Your task to perform on an android device: Clear the cart on target.com. Add usb-a to usb-b to the cart on target.com Image 0: 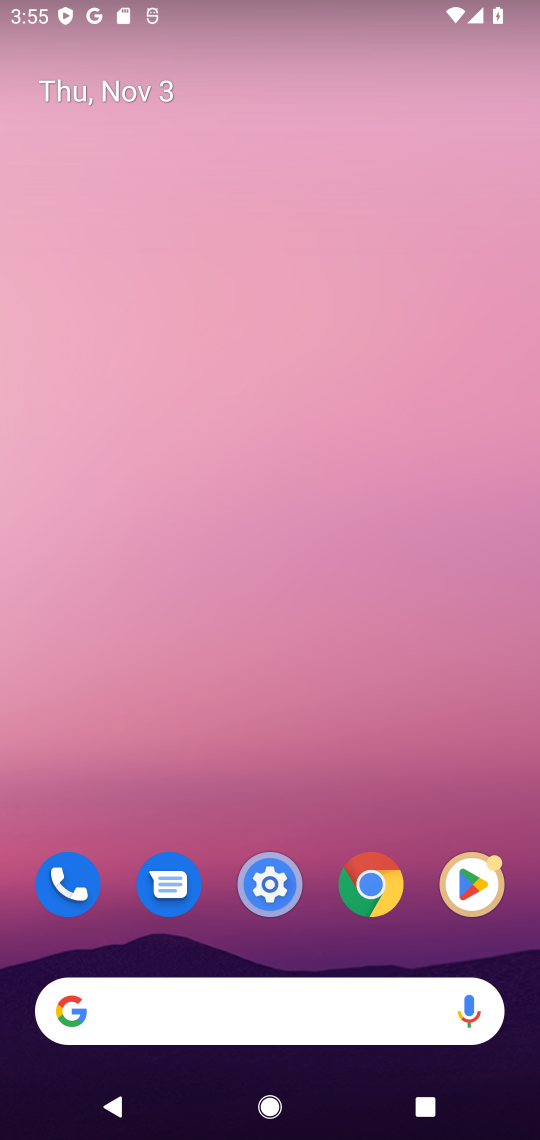
Step 0: press home button
Your task to perform on an android device: Clear the cart on target.com. Add usb-a to usb-b to the cart on target.com Image 1: 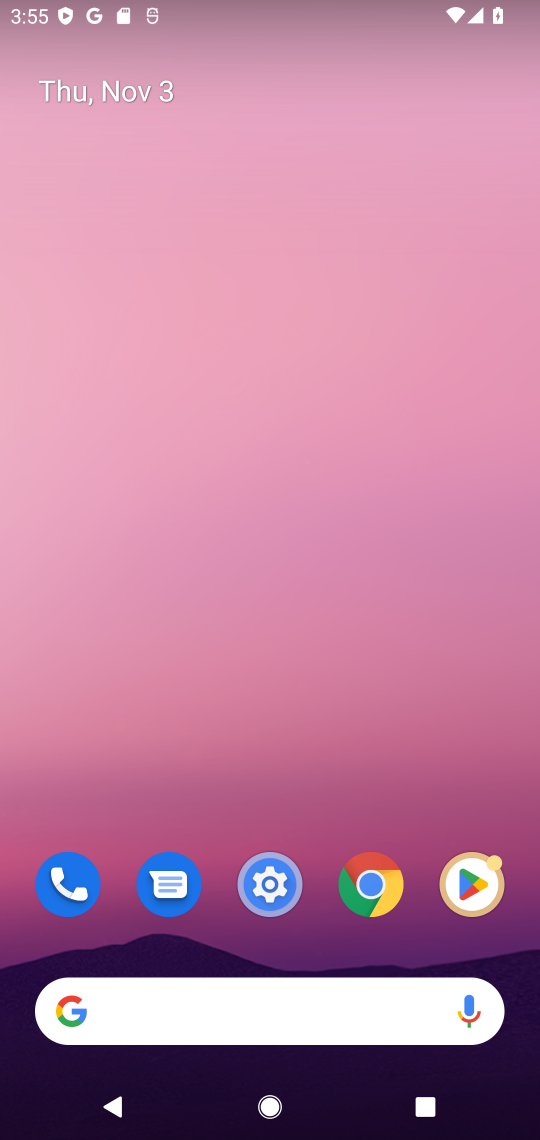
Step 1: click (102, 1006)
Your task to perform on an android device: Clear the cart on target.com. Add usb-a to usb-b to the cart on target.com Image 2: 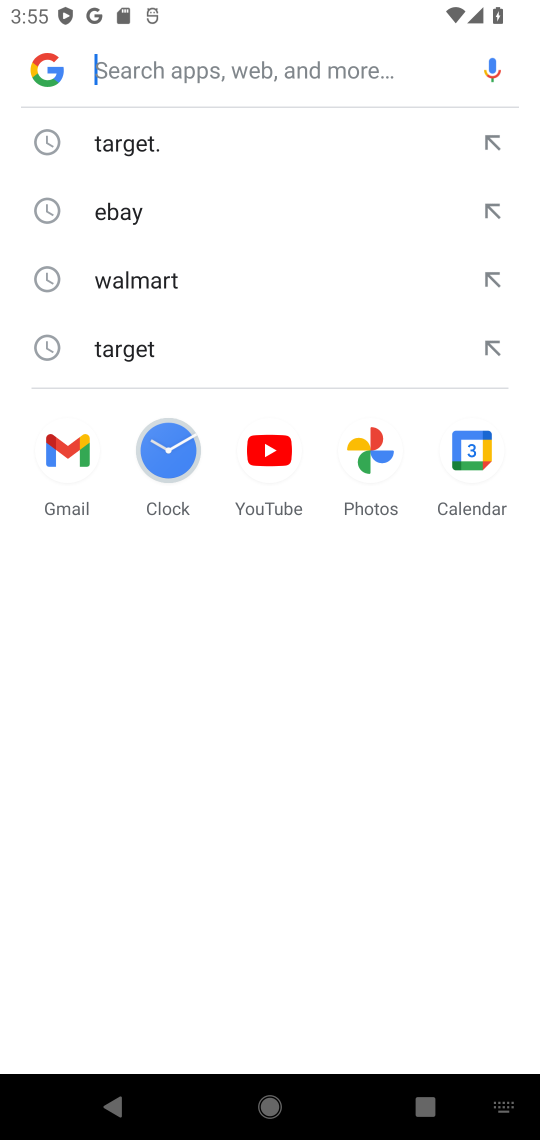
Step 2: type "target.com"
Your task to perform on an android device: Clear the cart on target.com. Add usb-a to usb-b to the cart on target.com Image 3: 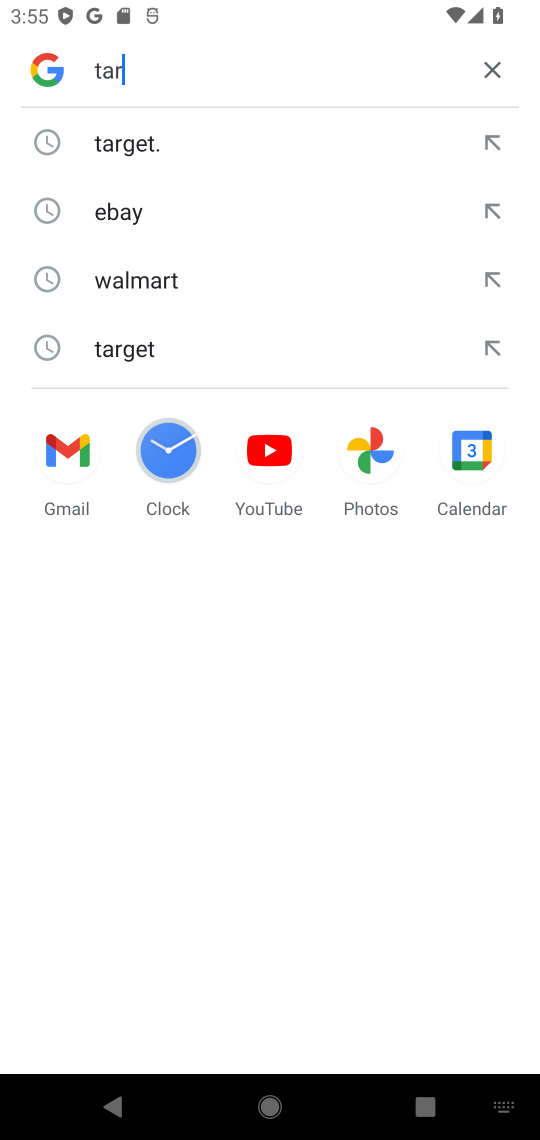
Step 3: press enter
Your task to perform on an android device: Clear the cart on target.com. Add usb-a to usb-b to the cart on target.com Image 4: 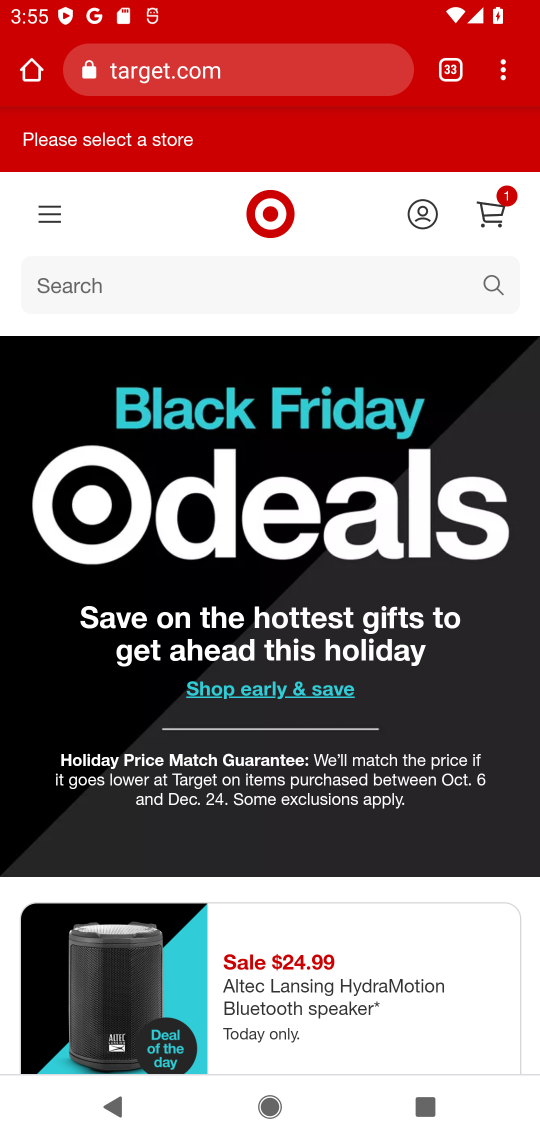
Step 4: click (492, 209)
Your task to perform on an android device: Clear the cart on target.com. Add usb-a to usb-b to the cart on target.com Image 5: 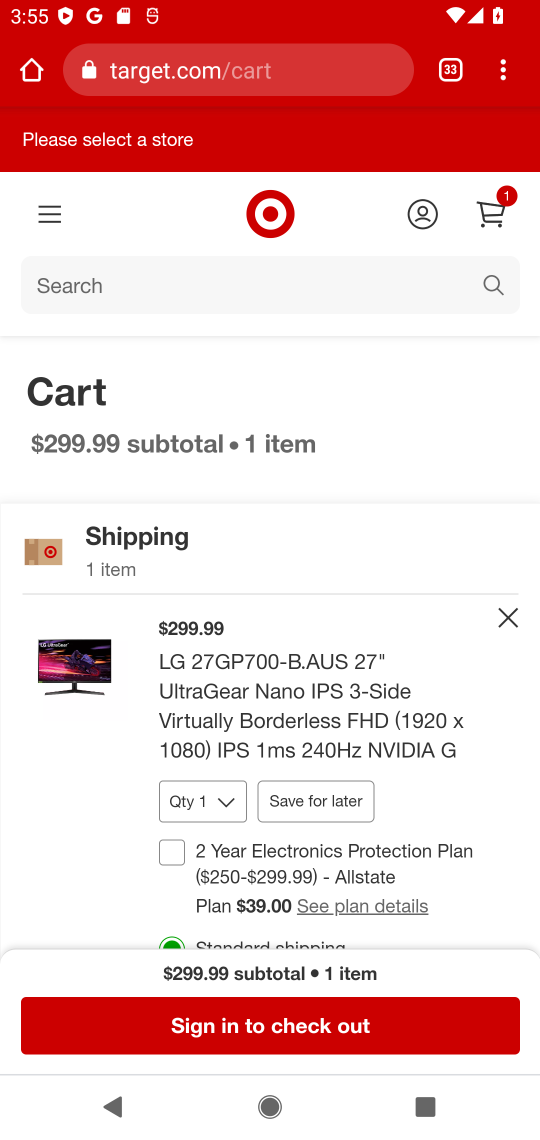
Step 5: click (514, 624)
Your task to perform on an android device: Clear the cart on target.com. Add usb-a to usb-b to the cart on target.com Image 6: 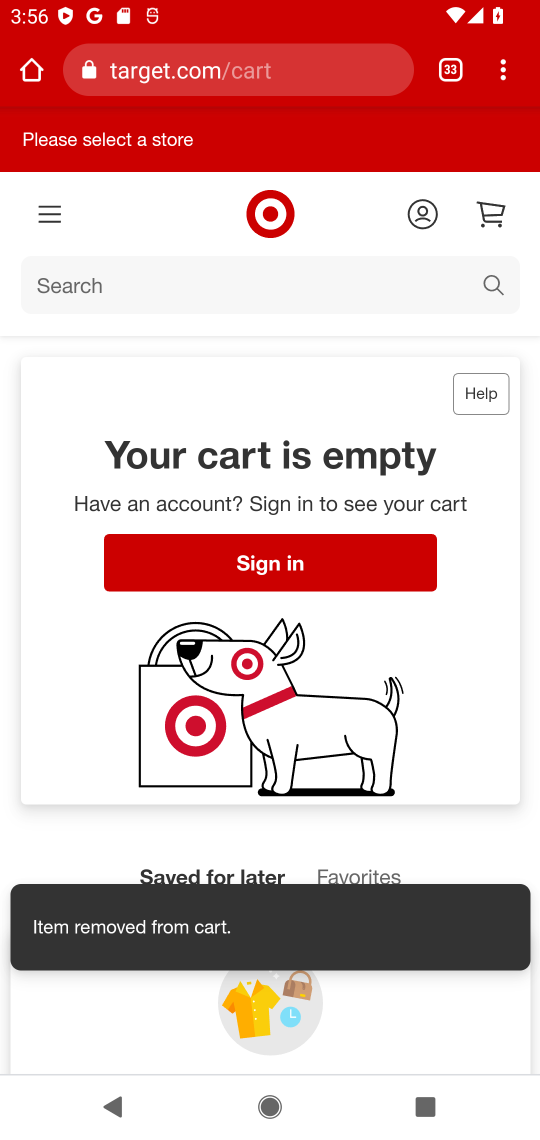
Step 6: click (103, 287)
Your task to perform on an android device: Clear the cart on target.com. Add usb-a to usb-b to the cart on target.com Image 7: 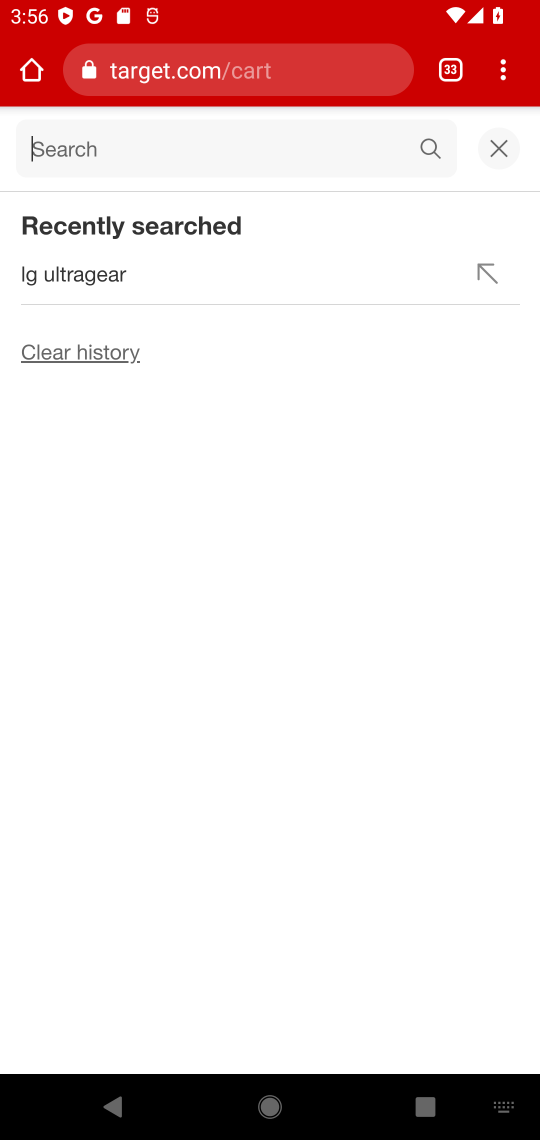
Step 7: type "usb-a to usb-b"
Your task to perform on an android device: Clear the cart on target.com. Add usb-a to usb-b to the cart on target.com Image 8: 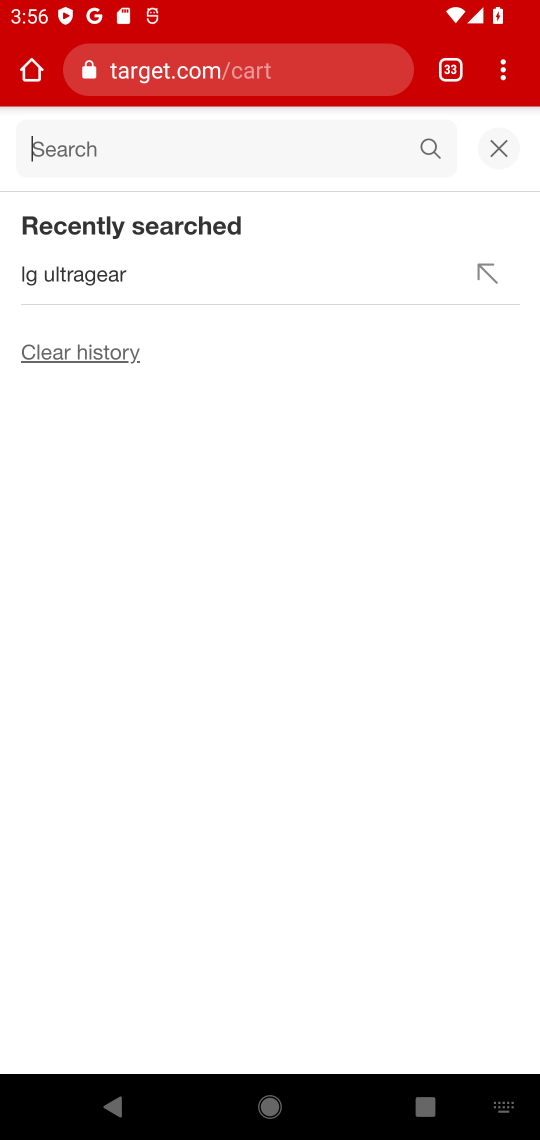
Step 8: press enter
Your task to perform on an android device: Clear the cart on target.com. Add usb-a to usb-b to the cart on target.com Image 9: 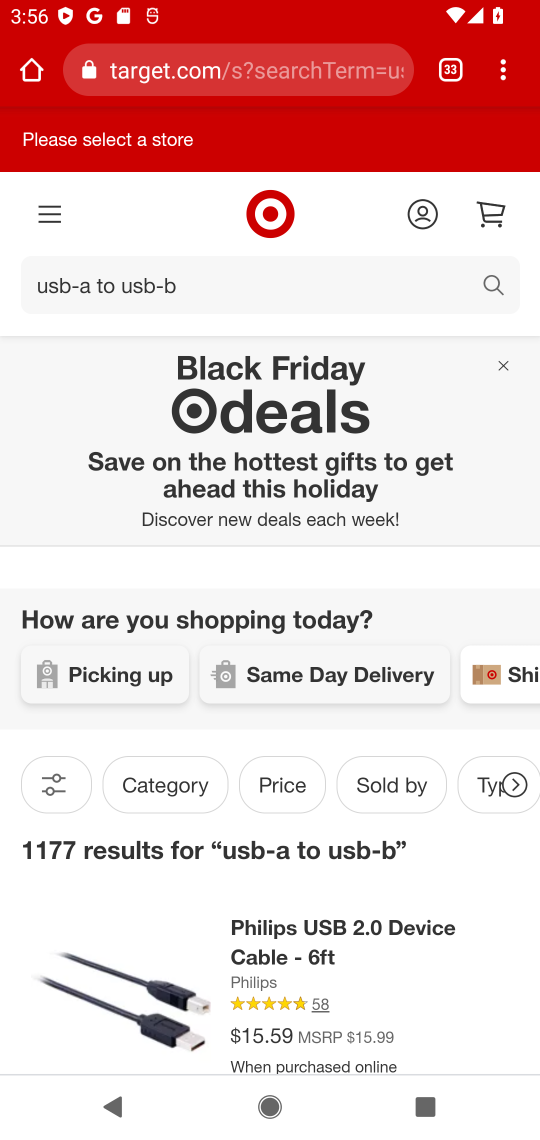
Step 9: drag from (353, 941) to (376, 687)
Your task to perform on an android device: Clear the cart on target.com. Add usb-a to usb-b to the cart on target.com Image 10: 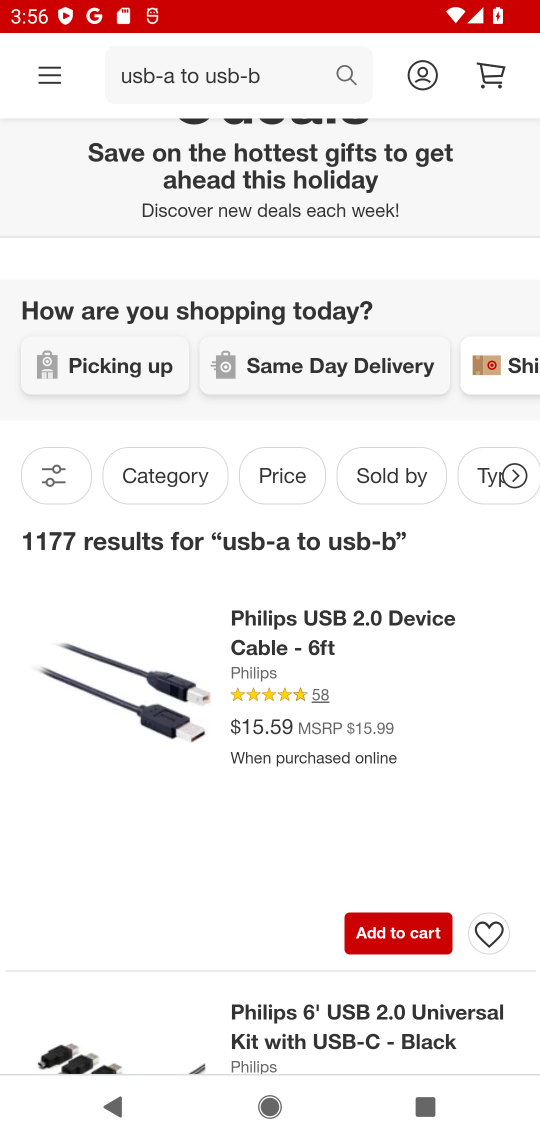
Step 10: drag from (322, 985) to (331, 778)
Your task to perform on an android device: Clear the cart on target.com. Add usb-a to usb-b to the cart on target.com Image 11: 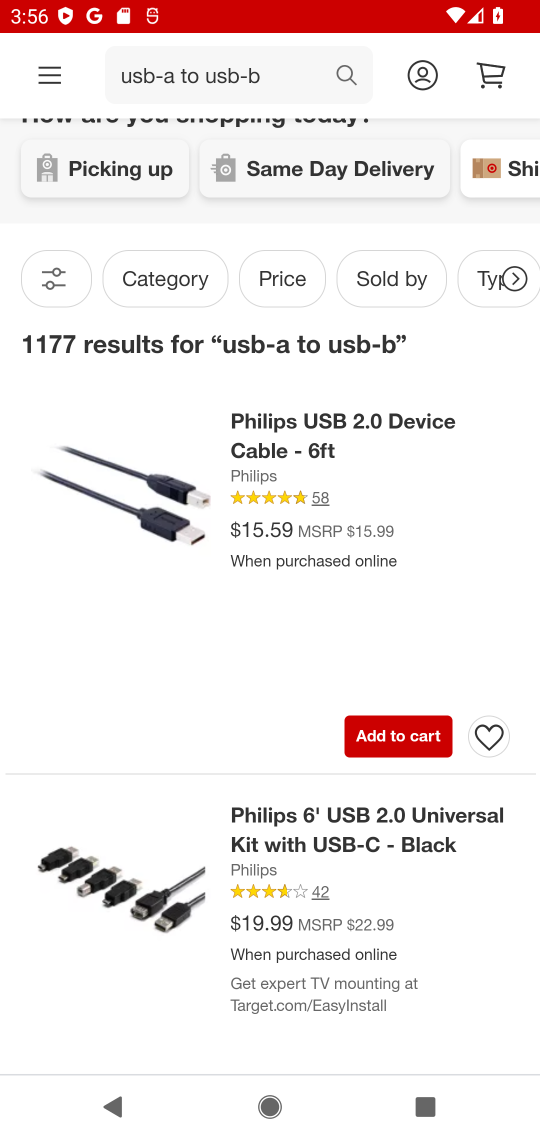
Step 11: drag from (336, 965) to (373, 673)
Your task to perform on an android device: Clear the cart on target.com. Add usb-a to usb-b to the cart on target.com Image 12: 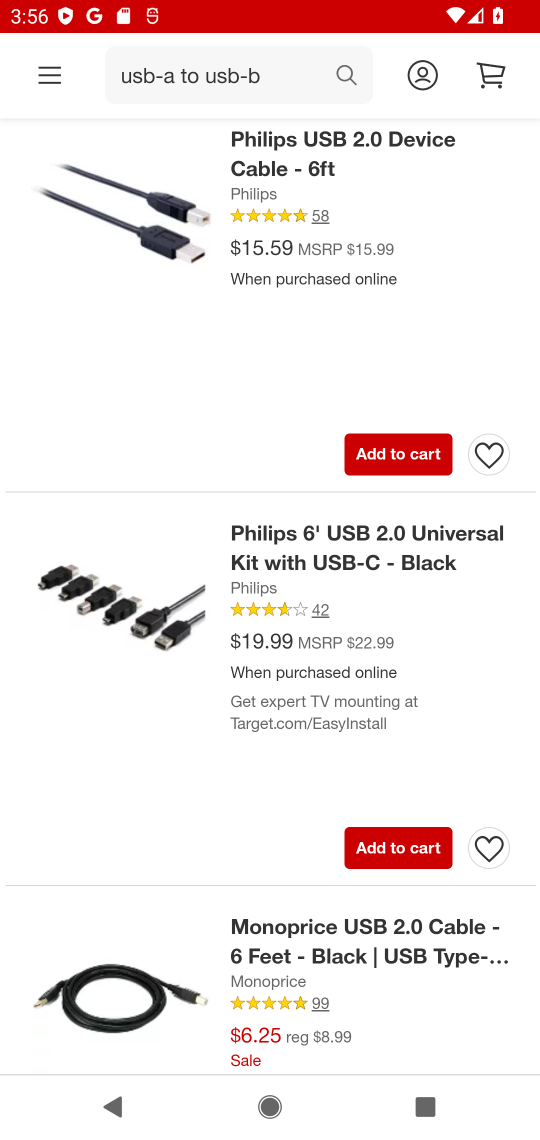
Step 12: drag from (357, 1007) to (365, 739)
Your task to perform on an android device: Clear the cart on target.com. Add usb-a to usb-b to the cart on target.com Image 13: 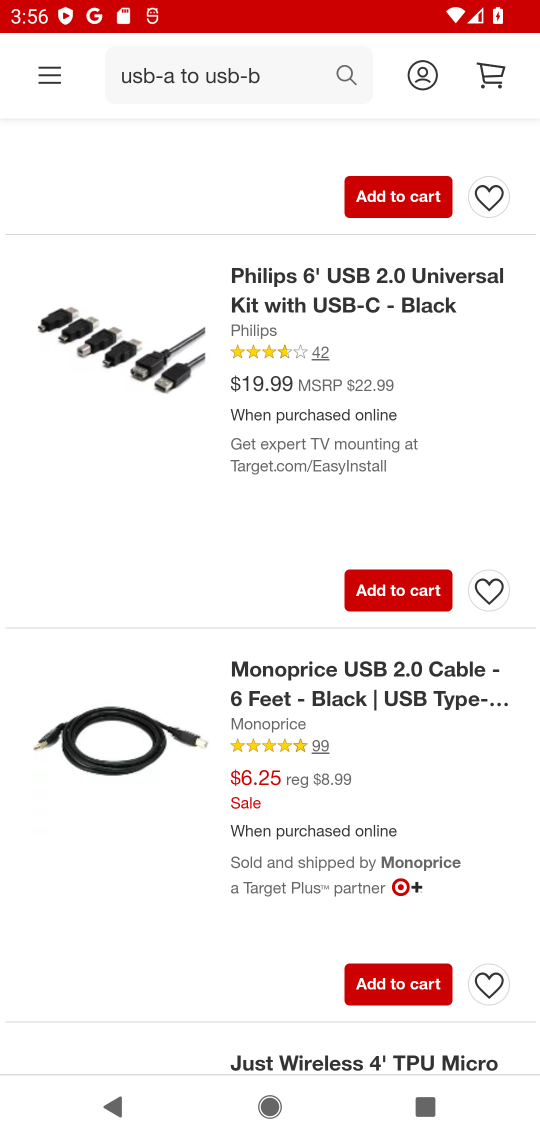
Step 13: drag from (299, 982) to (307, 766)
Your task to perform on an android device: Clear the cart on target.com. Add usb-a to usb-b to the cart on target.com Image 14: 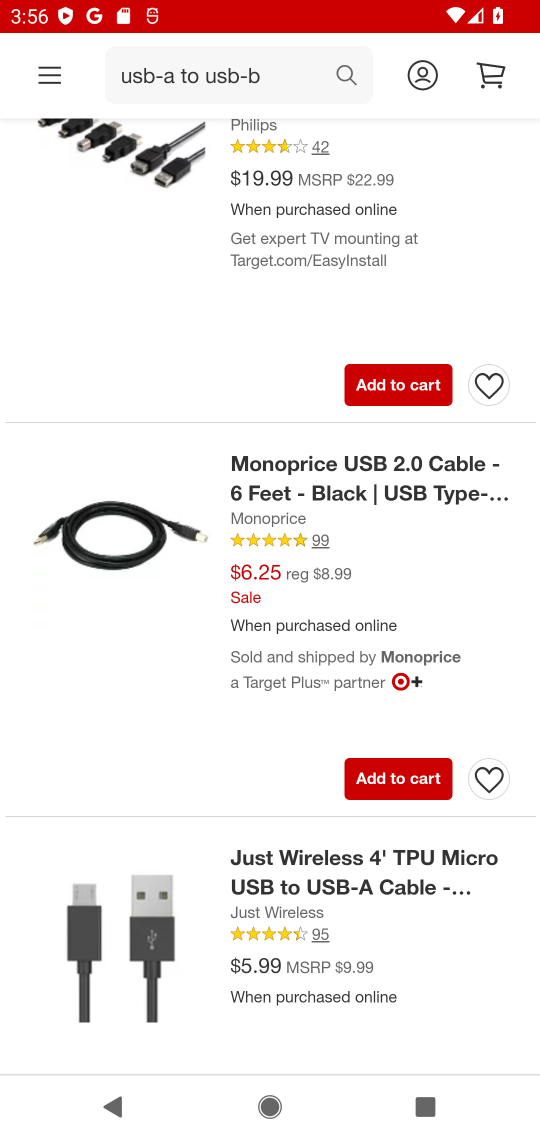
Step 14: drag from (340, 988) to (370, 588)
Your task to perform on an android device: Clear the cart on target.com. Add usb-a to usb-b to the cart on target.com Image 15: 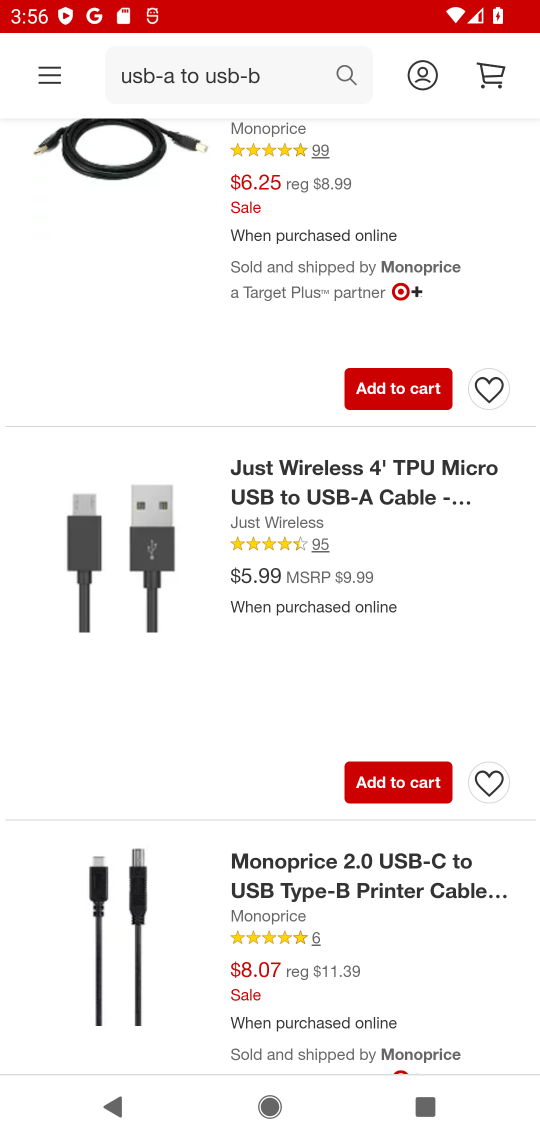
Step 15: drag from (369, 980) to (373, 670)
Your task to perform on an android device: Clear the cart on target.com. Add usb-a to usb-b to the cart on target.com Image 16: 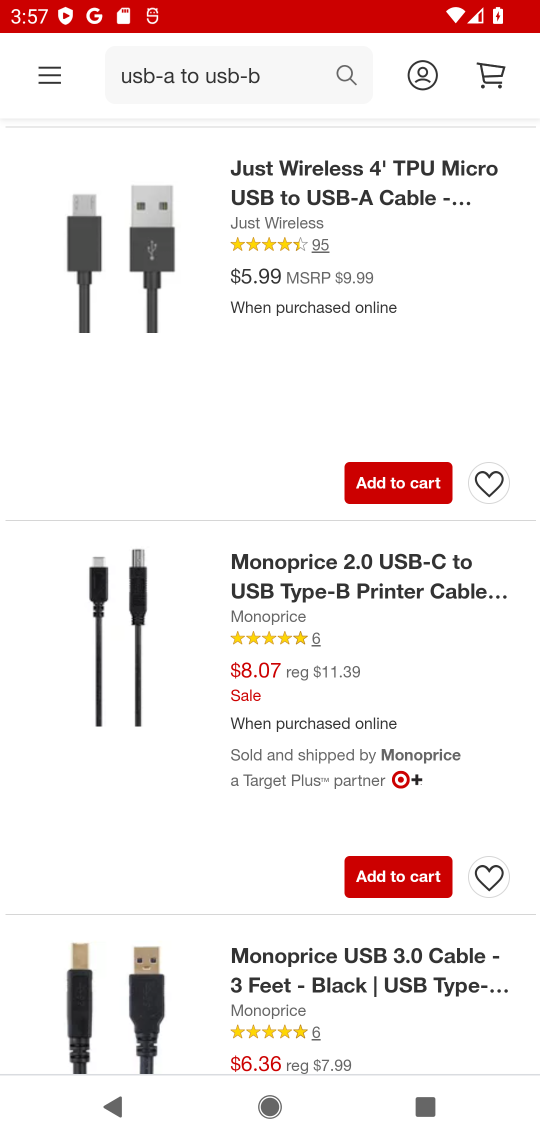
Step 16: drag from (340, 1003) to (341, 581)
Your task to perform on an android device: Clear the cart on target.com. Add usb-a to usb-b to the cart on target.com Image 17: 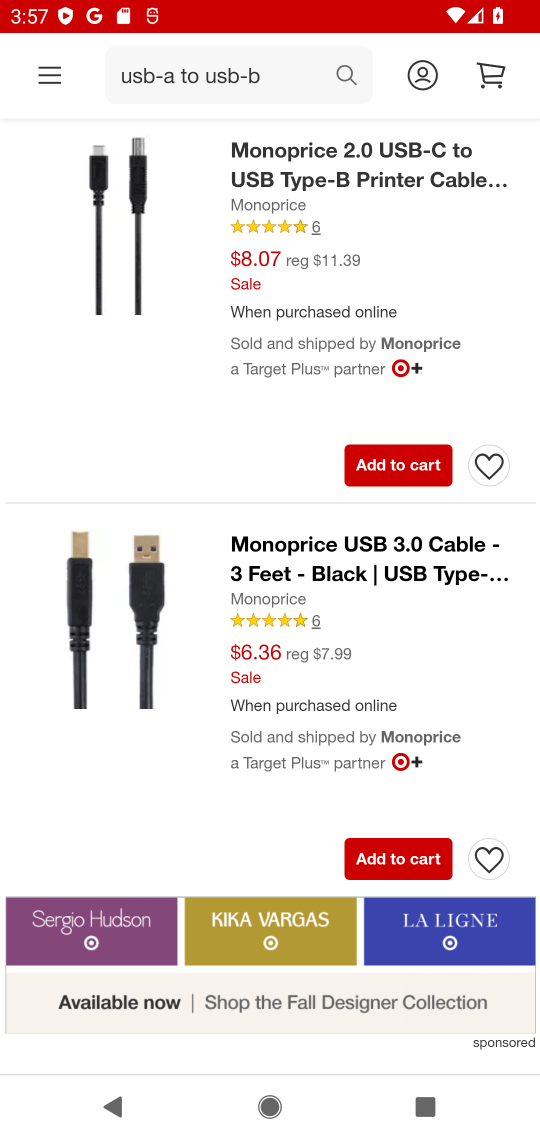
Step 17: drag from (325, 987) to (362, 595)
Your task to perform on an android device: Clear the cart on target.com. Add usb-a to usb-b to the cart on target.com Image 18: 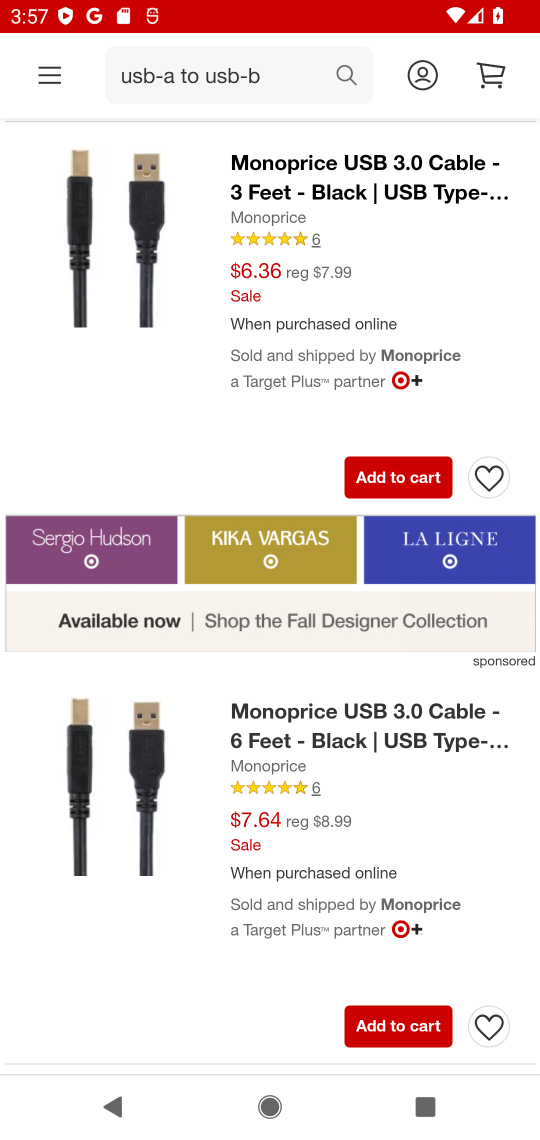
Step 18: drag from (293, 944) to (321, 701)
Your task to perform on an android device: Clear the cart on target.com. Add usb-a to usb-b to the cart on target.com Image 19: 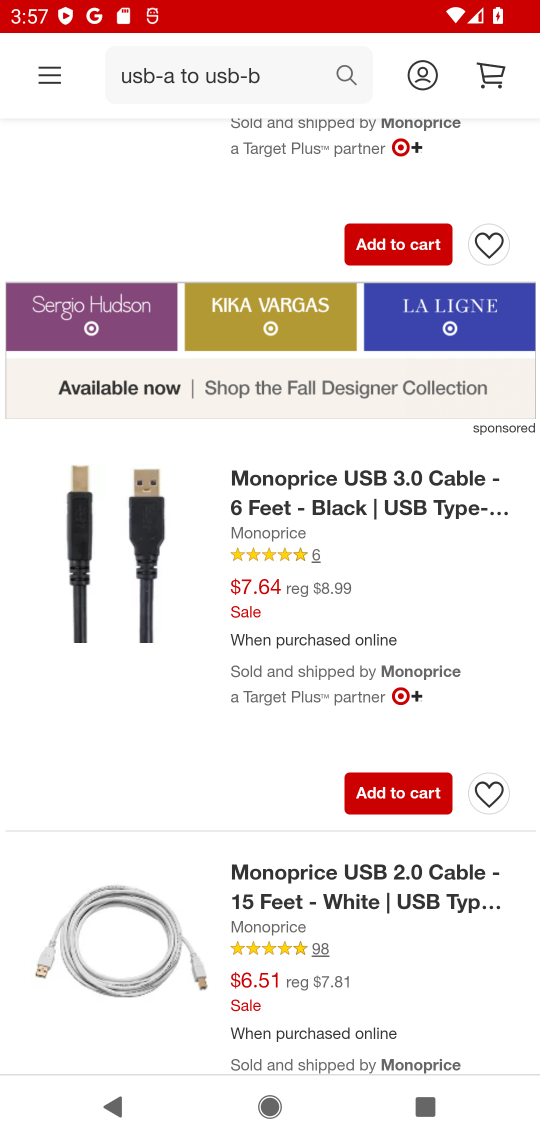
Step 19: drag from (309, 996) to (328, 664)
Your task to perform on an android device: Clear the cart on target.com. Add usb-a to usb-b to the cart on target.com Image 20: 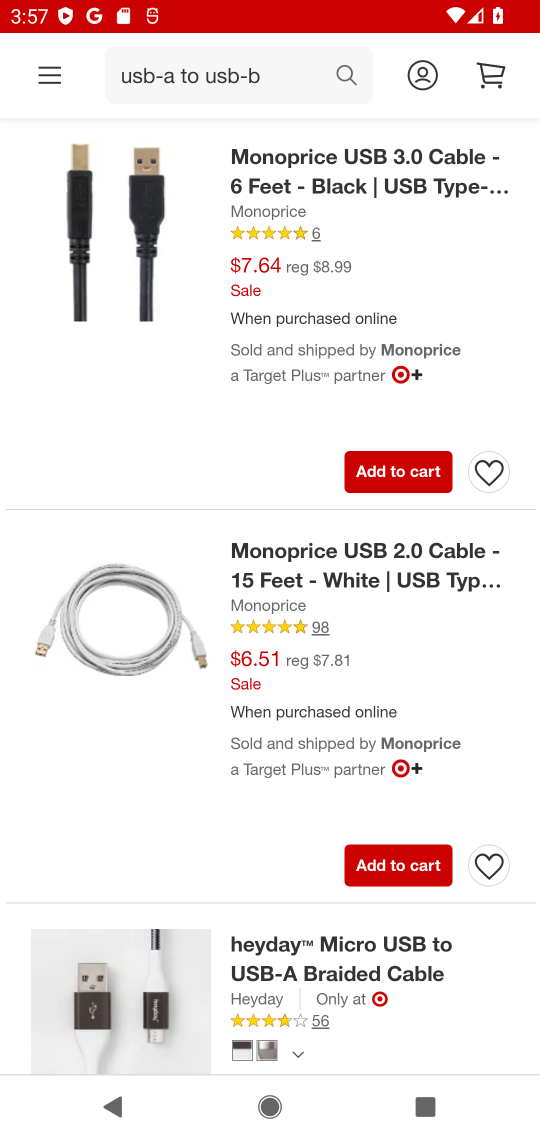
Step 20: drag from (317, 1016) to (344, 764)
Your task to perform on an android device: Clear the cart on target.com. Add usb-a to usb-b to the cart on target.com Image 21: 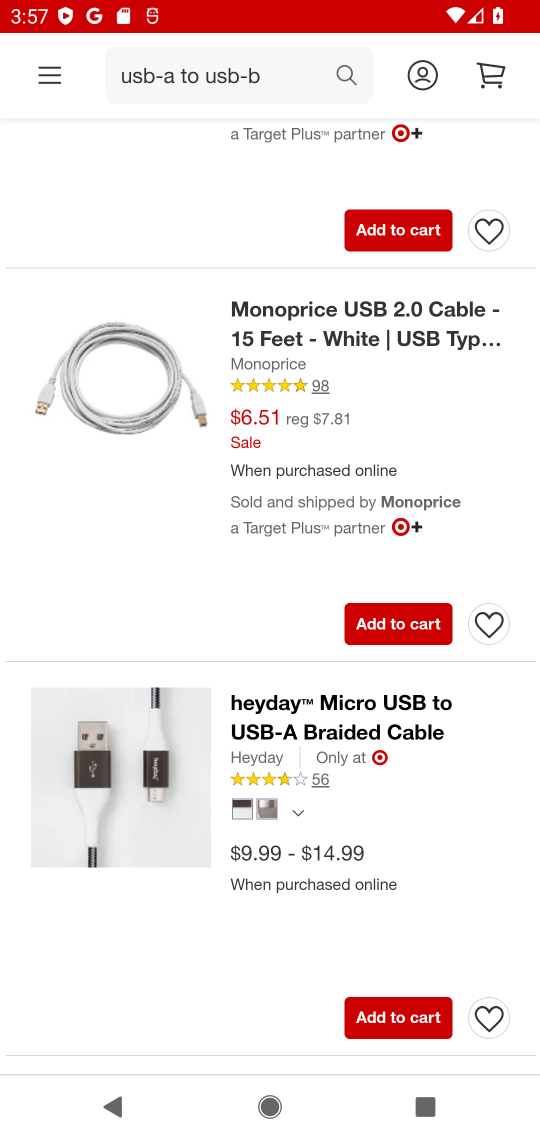
Step 21: drag from (262, 944) to (280, 804)
Your task to perform on an android device: Clear the cart on target.com. Add usb-a to usb-b to the cart on target.com Image 22: 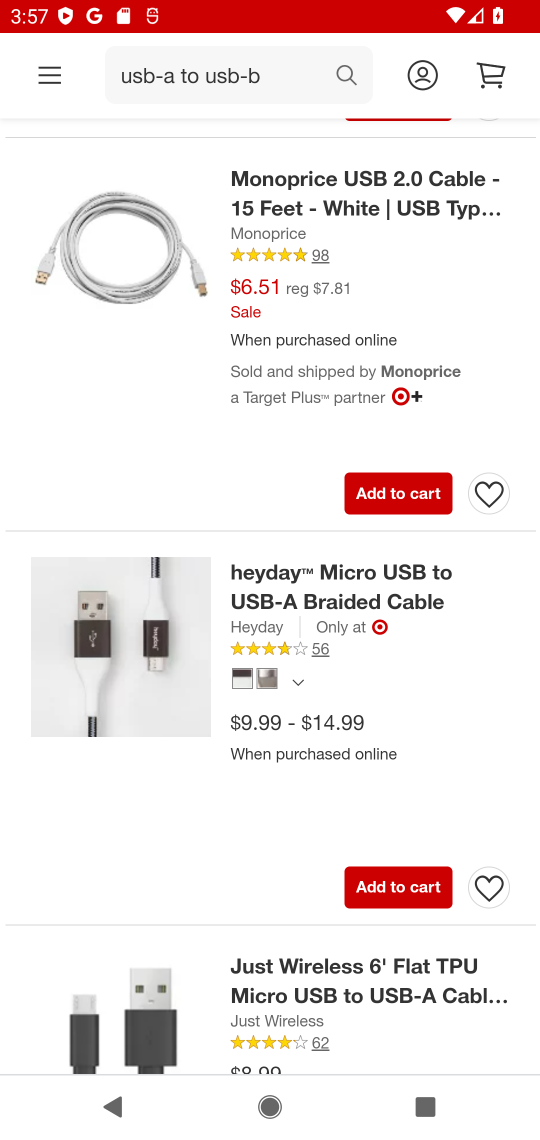
Step 22: drag from (280, 980) to (296, 793)
Your task to perform on an android device: Clear the cart on target.com. Add usb-a to usb-b to the cart on target.com Image 23: 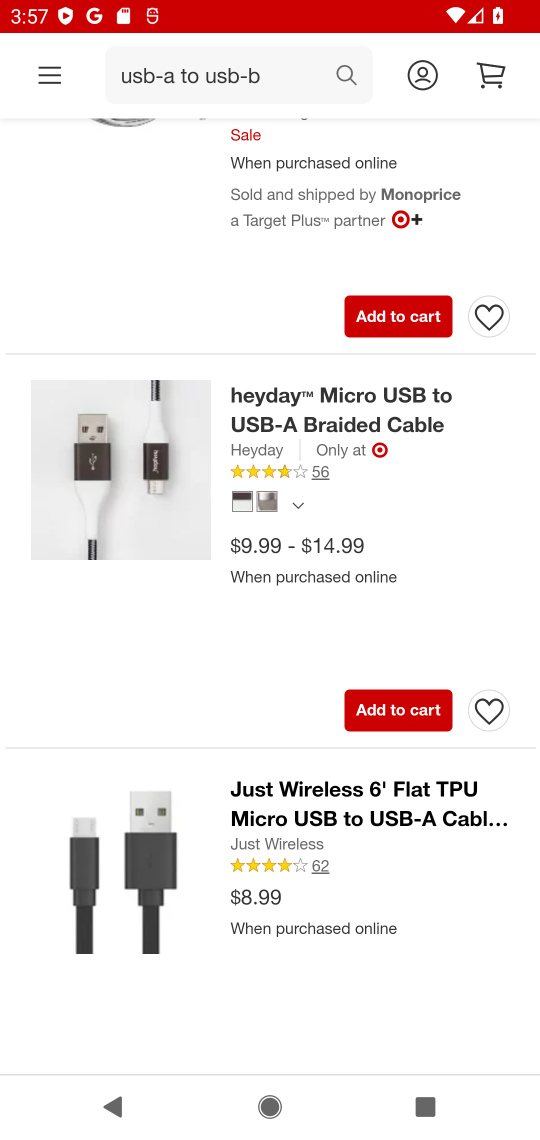
Step 23: drag from (296, 968) to (310, 650)
Your task to perform on an android device: Clear the cart on target.com. Add usb-a to usb-b to the cart on target.com Image 24: 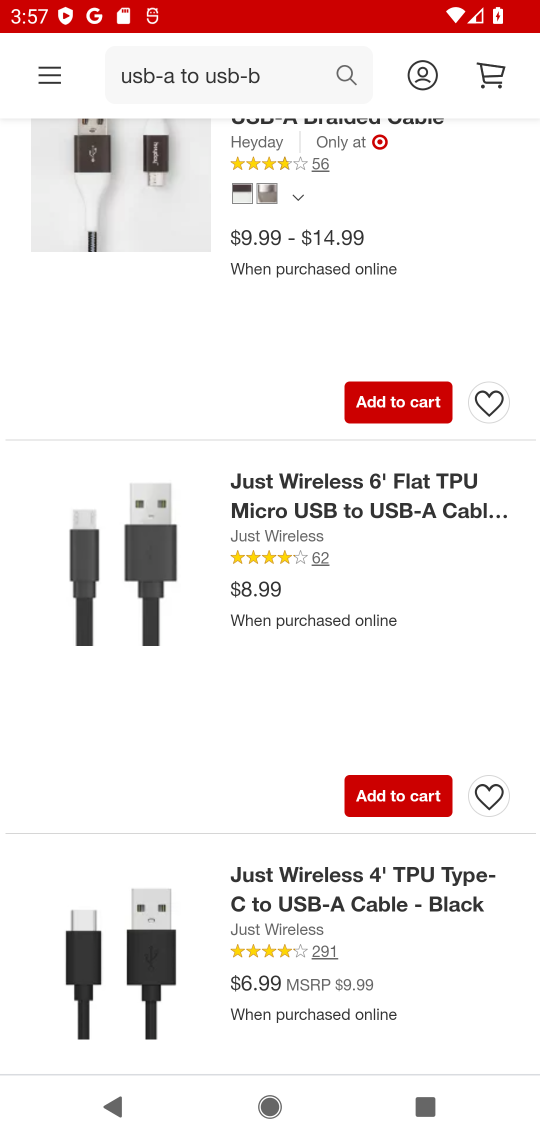
Step 24: drag from (312, 925) to (378, 472)
Your task to perform on an android device: Clear the cart on target.com. Add usb-a to usb-b to the cart on target.com Image 25: 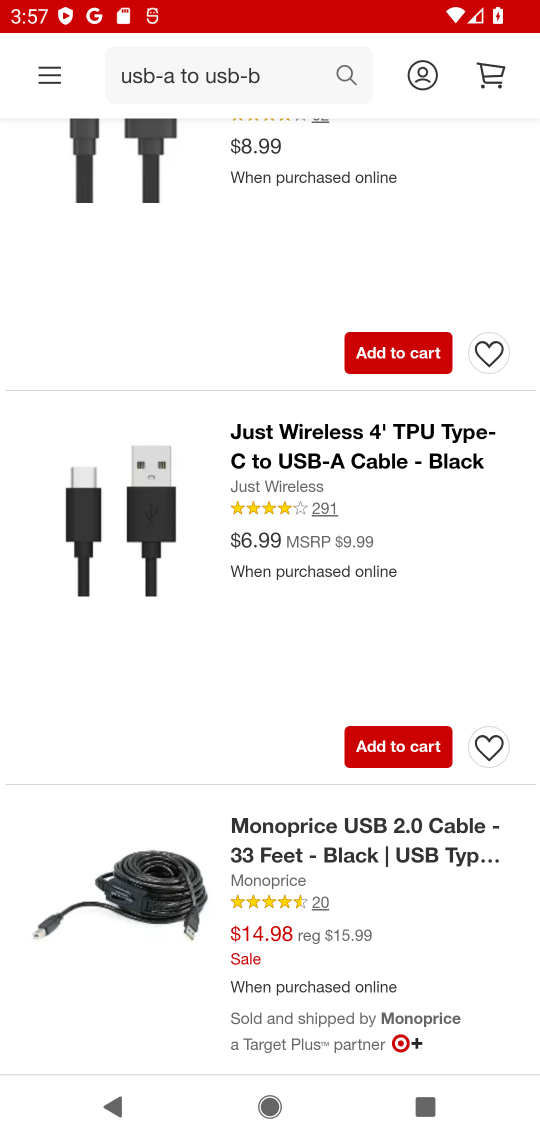
Step 25: drag from (365, 898) to (391, 616)
Your task to perform on an android device: Clear the cart on target.com. Add usb-a to usb-b to the cart on target.com Image 26: 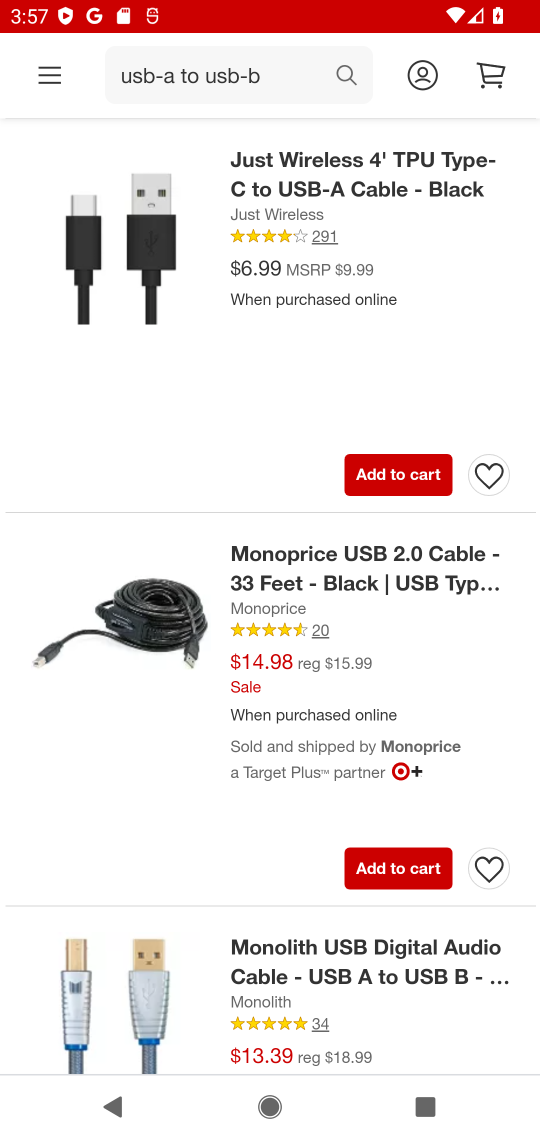
Step 26: click (296, 962)
Your task to perform on an android device: Clear the cart on target.com. Add usb-a to usb-b to the cart on target.com Image 27: 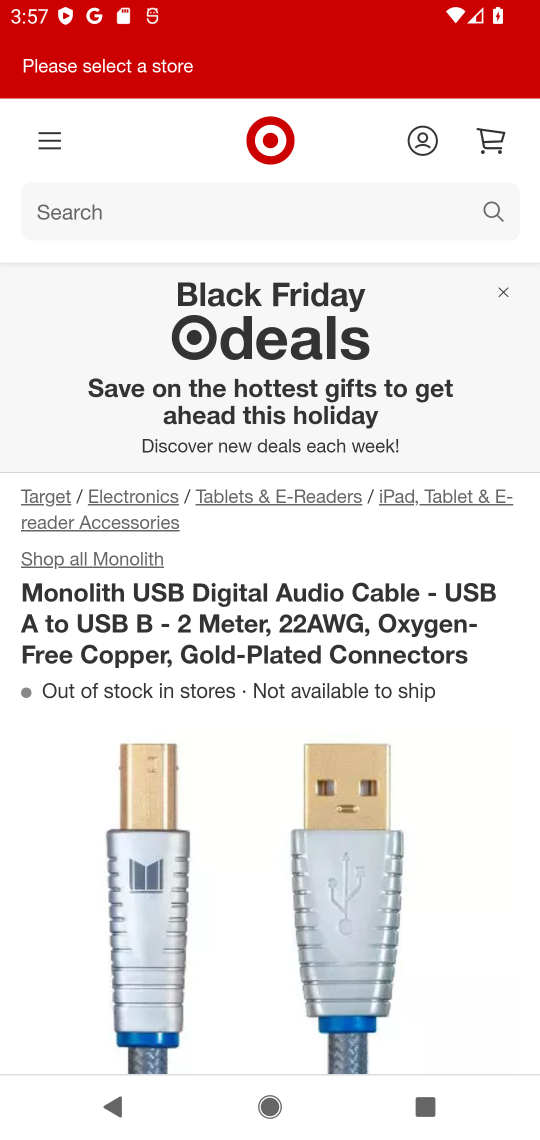
Step 27: drag from (303, 999) to (333, 568)
Your task to perform on an android device: Clear the cart on target.com. Add usb-a to usb-b to the cart on target.com Image 28: 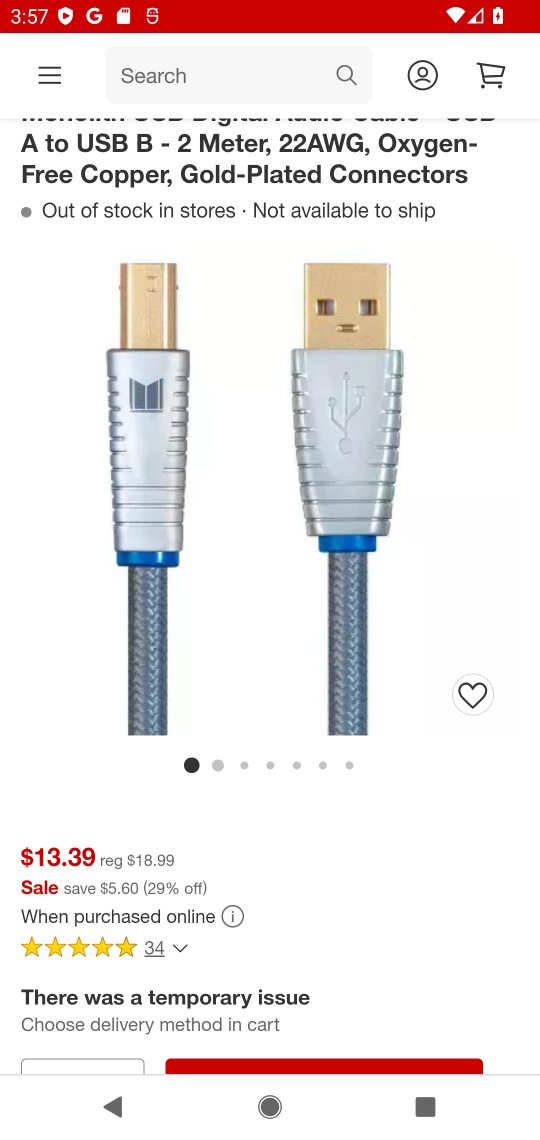
Step 28: drag from (332, 971) to (362, 638)
Your task to perform on an android device: Clear the cart on target.com. Add usb-a to usb-b to the cart on target.com Image 29: 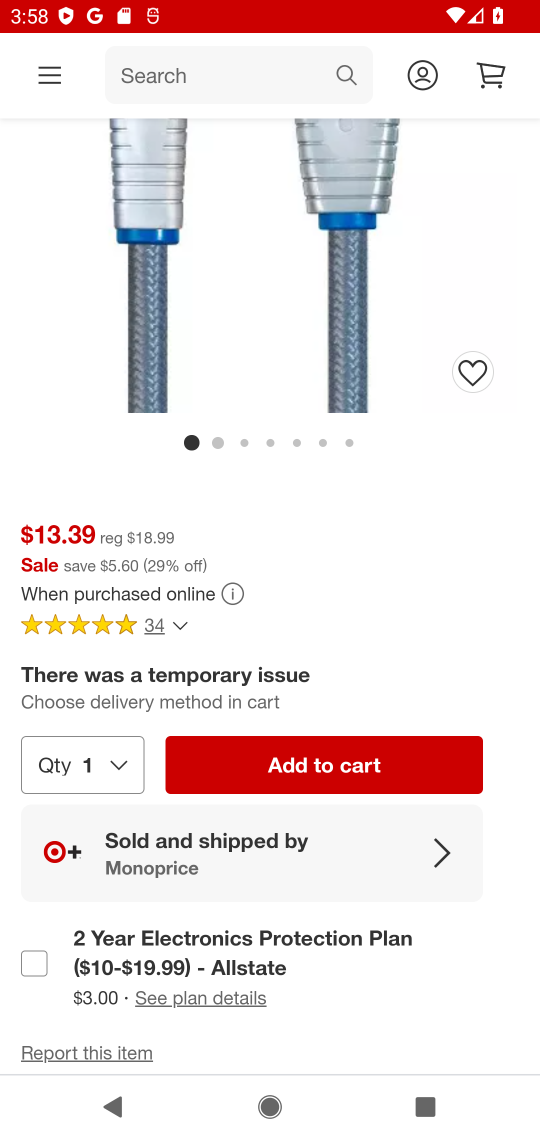
Step 29: click (343, 765)
Your task to perform on an android device: Clear the cart on target.com. Add usb-a to usb-b to the cart on target.com Image 30: 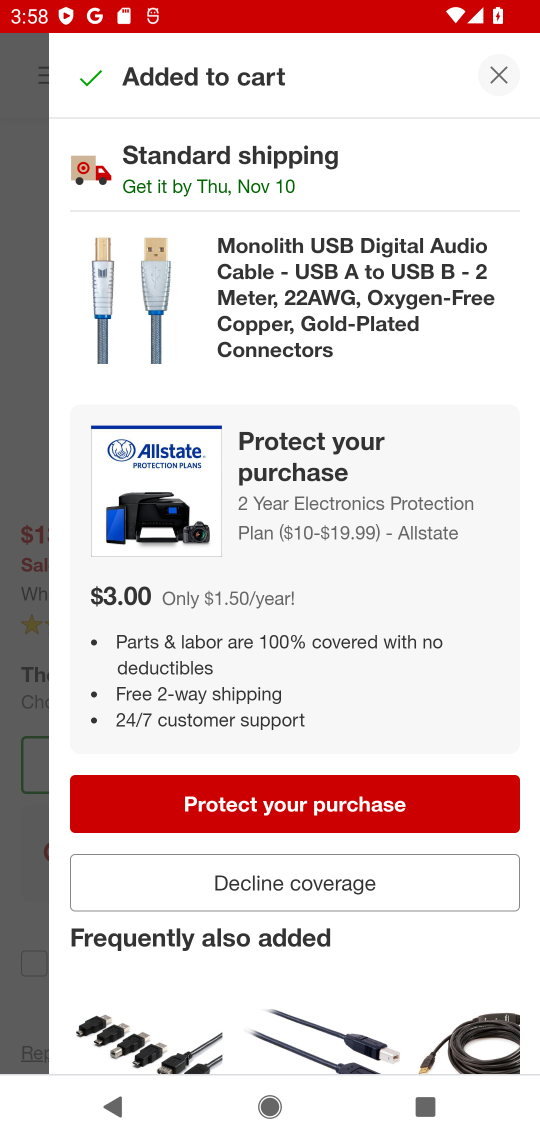
Step 30: task complete